Your task to perform on an android device: change the clock display to analog Image 0: 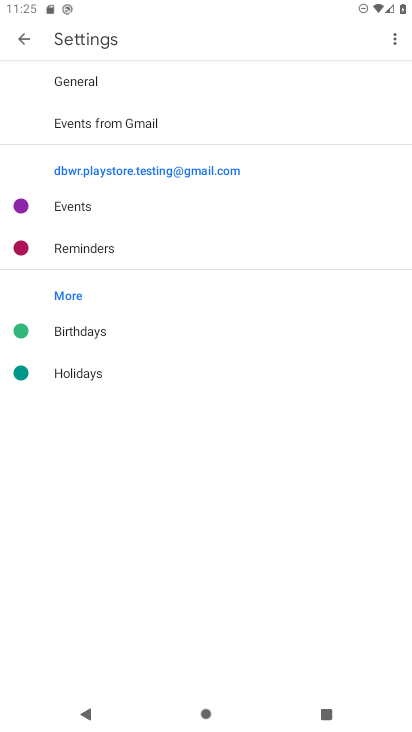
Step 0: press home button
Your task to perform on an android device: change the clock display to analog Image 1: 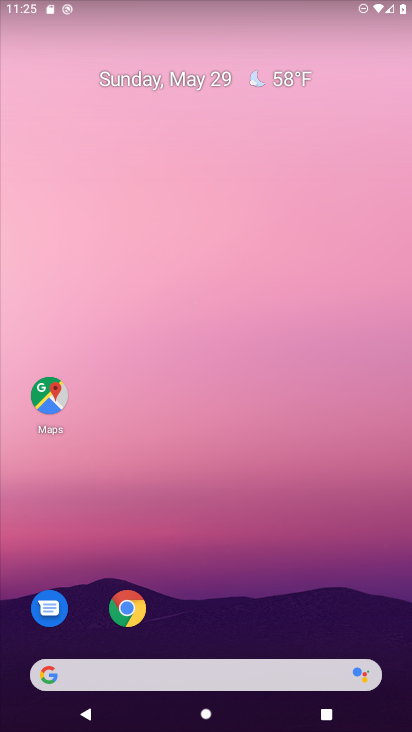
Step 1: drag from (278, 649) to (293, 356)
Your task to perform on an android device: change the clock display to analog Image 2: 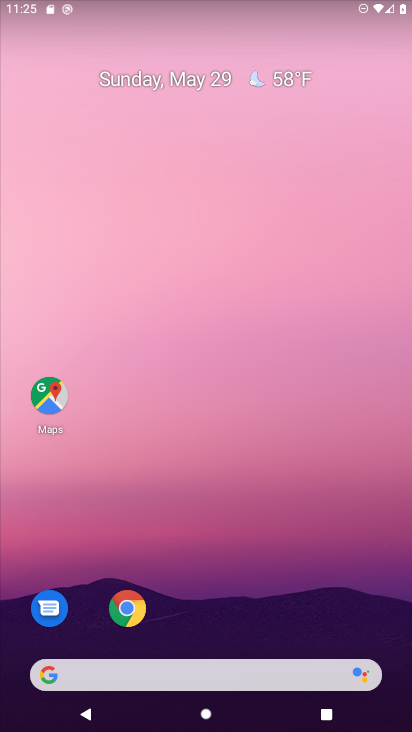
Step 2: drag from (251, 502) to (236, 204)
Your task to perform on an android device: change the clock display to analog Image 3: 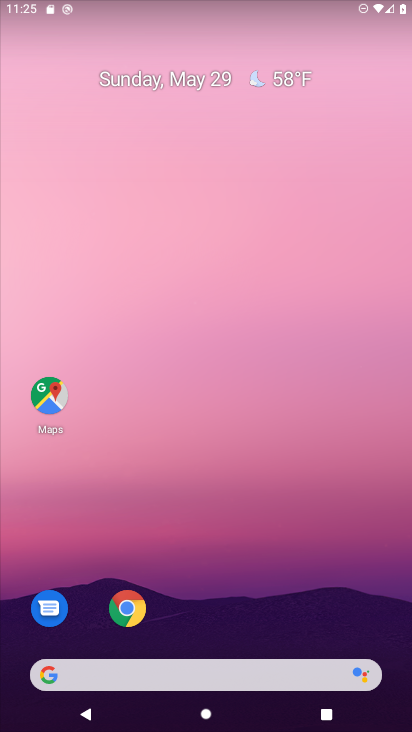
Step 3: drag from (139, 637) to (218, 1)
Your task to perform on an android device: change the clock display to analog Image 4: 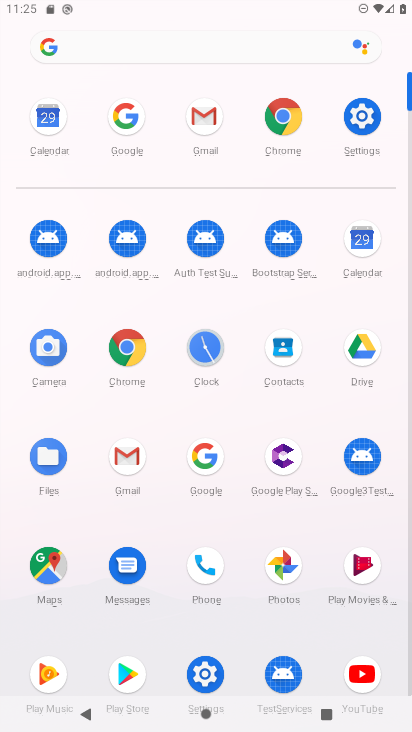
Step 4: click (214, 346)
Your task to perform on an android device: change the clock display to analog Image 5: 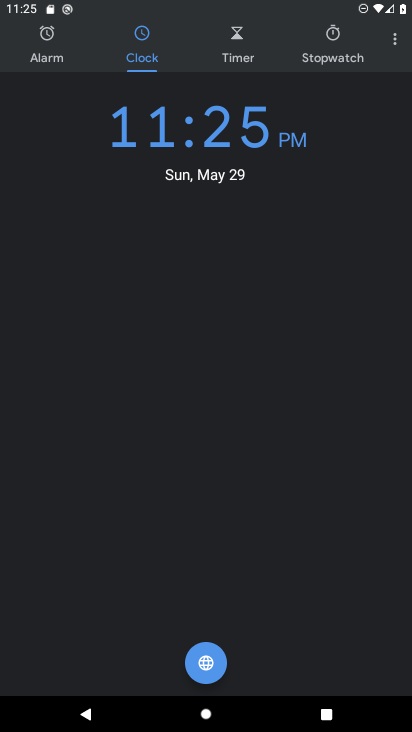
Step 5: click (403, 38)
Your task to perform on an android device: change the clock display to analog Image 6: 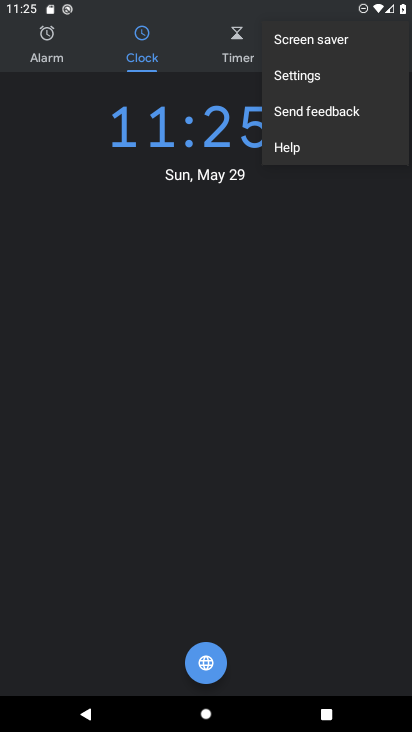
Step 6: click (292, 74)
Your task to perform on an android device: change the clock display to analog Image 7: 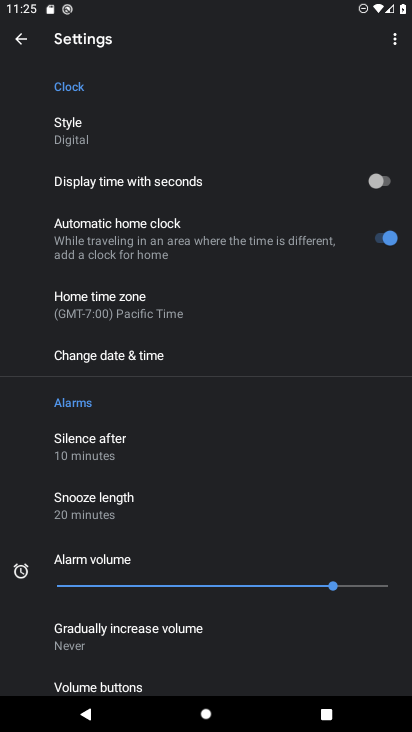
Step 7: click (80, 138)
Your task to perform on an android device: change the clock display to analog Image 8: 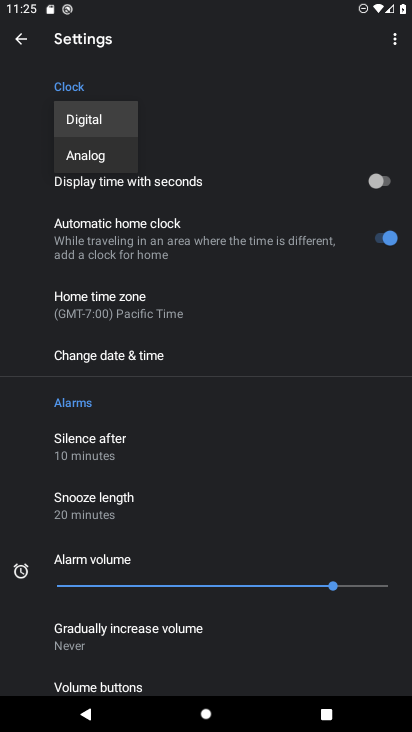
Step 8: click (127, 148)
Your task to perform on an android device: change the clock display to analog Image 9: 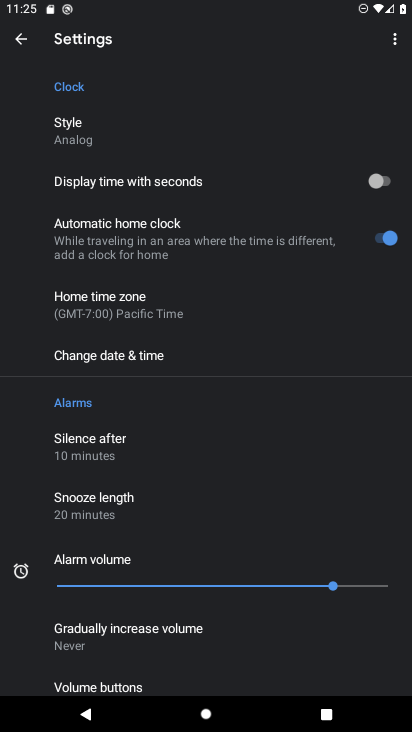
Step 9: task complete